Your task to perform on an android device: Play the last video I watched on Youtube Image 0: 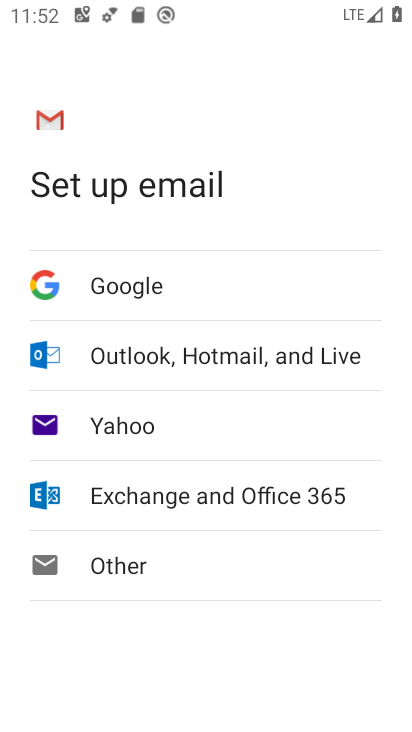
Step 0: press home button
Your task to perform on an android device: Play the last video I watched on Youtube Image 1: 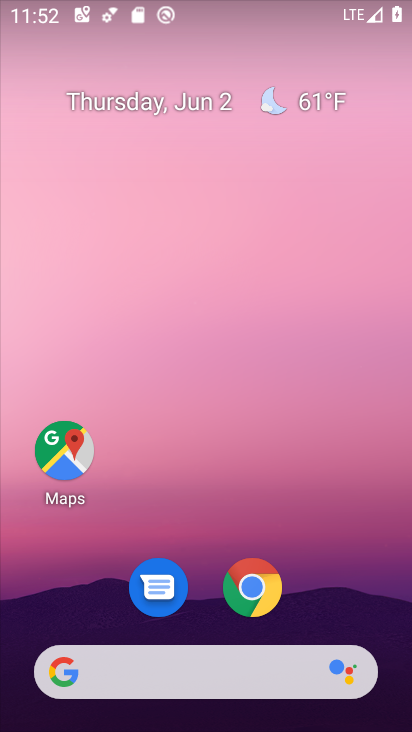
Step 1: drag from (205, 517) to (245, 1)
Your task to perform on an android device: Play the last video I watched on Youtube Image 2: 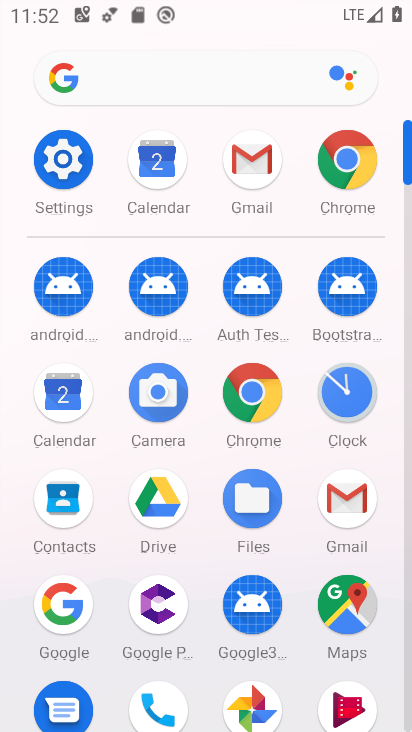
Step 2: drag from (209, 484) to (215, 95)
Your task to perform on an android device: Play the last video I watched on Youtube Image 3: 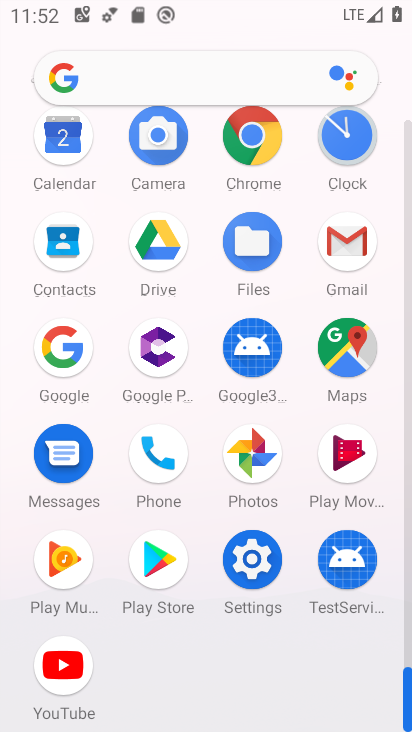
Step 3: click (62, 644)
Your task to perform on an android device: Play the last video I watched on Youtube Image 4: 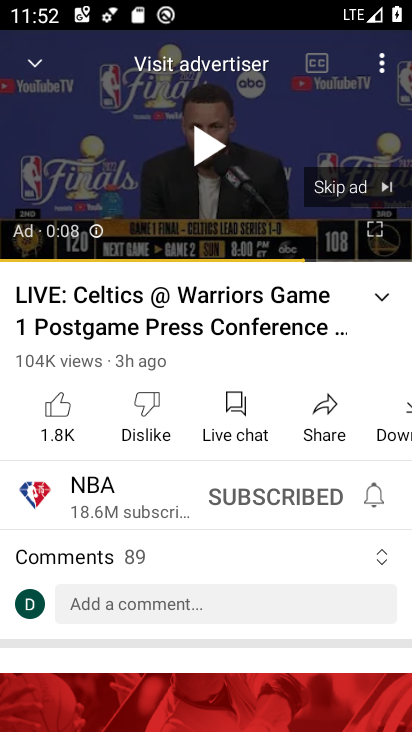
Step 4: click (211, 138)
Your task to perform on an android device: Play the last video I watched on Youtube Image 5: 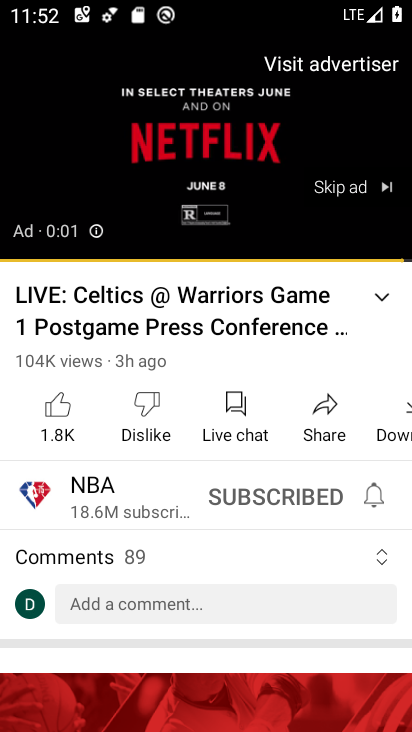
Step 5: task complete